Your task to perform on an android device: turn on bluetooth scan Image 0: 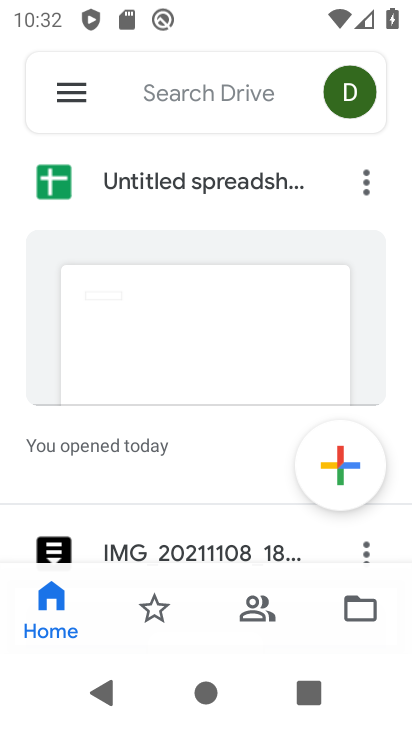
Step 0: press home button
Your task to perform on an android device: turn on bluetooth scan Image 1: 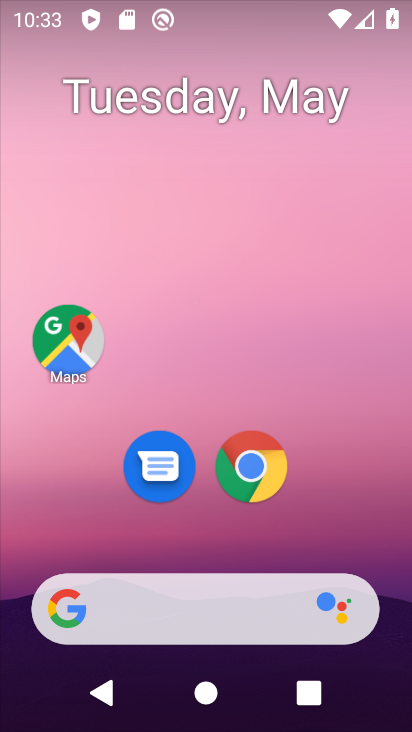
Step 1: drag from (140, 566) to (197, 141)
Your task to perform on an android device: turn on bluetooth scan Image 2: 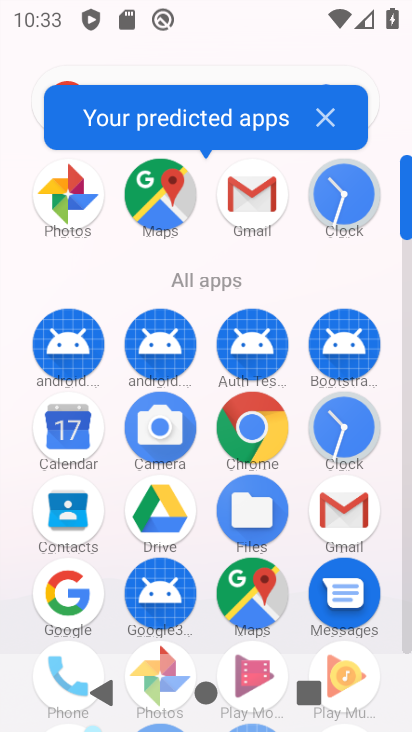
Step 2: drag from (122, 682) to (139, 340)
Your task to perform on an android device: turn on bluetooth scan Image 3: 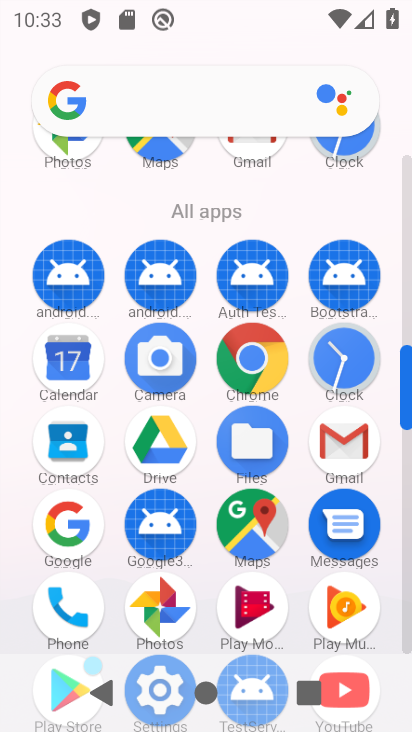
Step 3: drag from (119, 625) to (142, 246)
Your task to perform on an android device: turn on bluetooth scan Image 4: 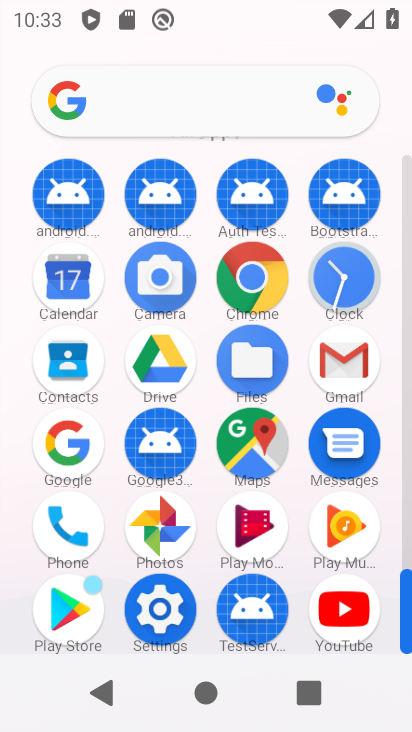
Step 4: click (166, 616)
Your task to perform on an android device: turn on bluetooth scan Image 5: 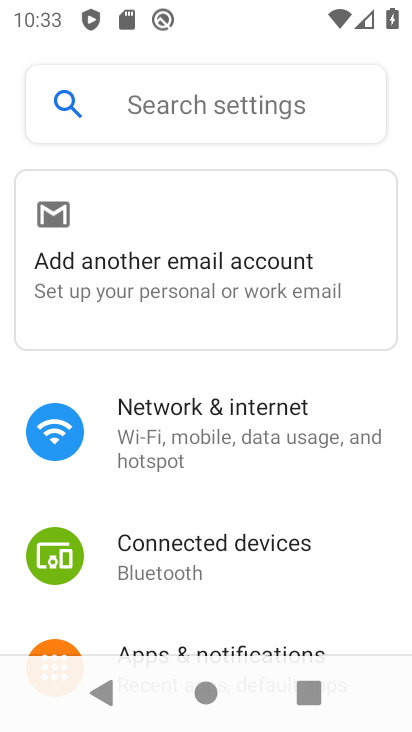
Step 5: drag from (206, 617) to (224, 255)
Your task to perform on an android device: turn on bluetooth scan Image 6: 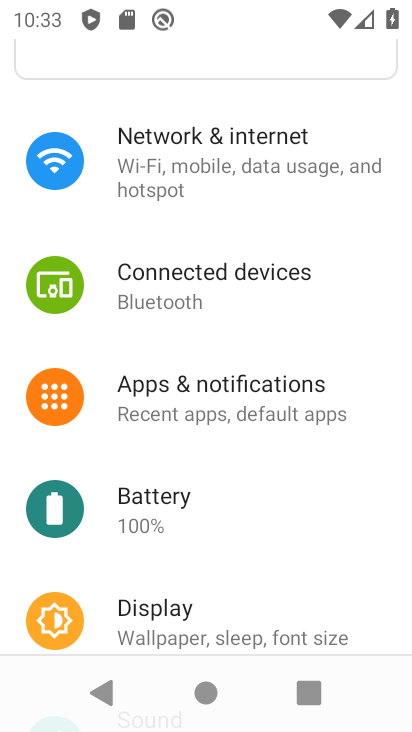
Step 6: drag from (201, 611) to (206, 193)
Your task to perform on an android device: turn on bluetooth scan Image 7: 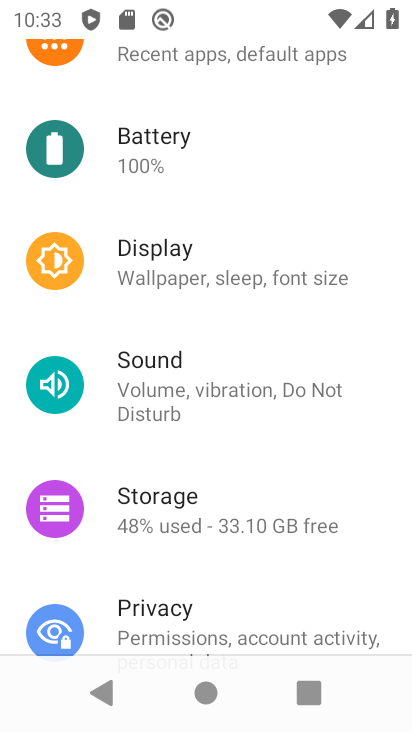
Step 7: drag from (202, 632) to (208, 332)
Your task to perform on an android device: turn on bluetooth scan Image 8: 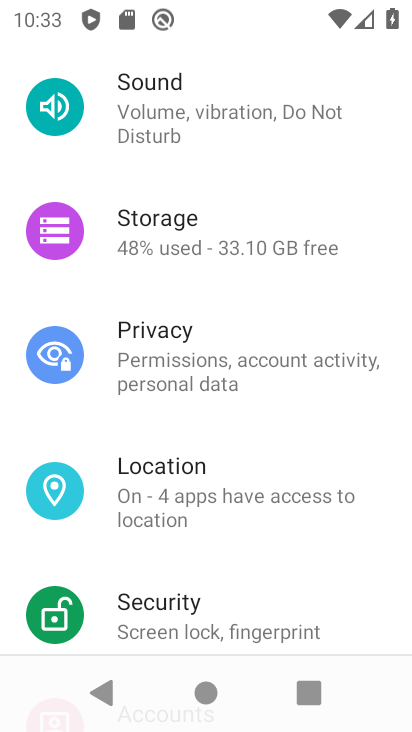
Step 8: click (159, 503)
Your task to perform on an android device: turn on bluetooth scan Image 9: 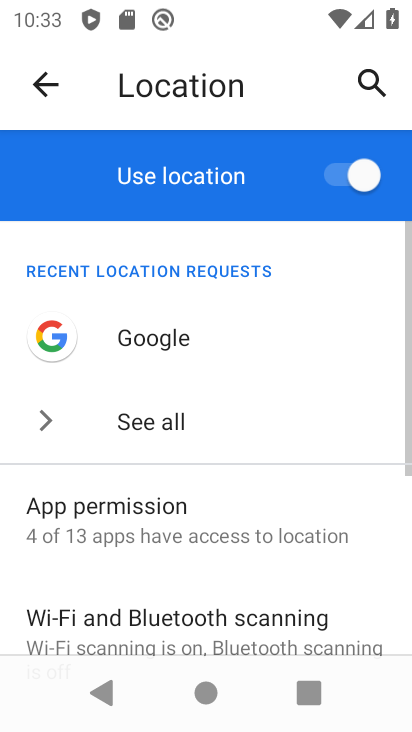
Step 9: click (184, 634)
Your task to perform on an android device: turn on bluetooth scan Image 10: 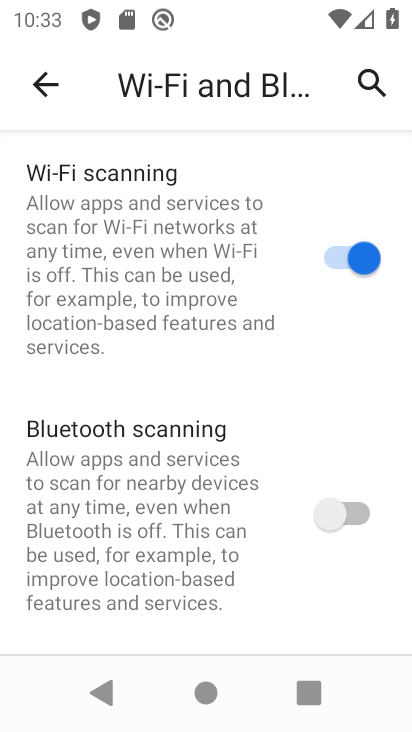
Step 10: click (358, 513)
Your task to perform on an android device: turn on bluetooth scan Image 11: 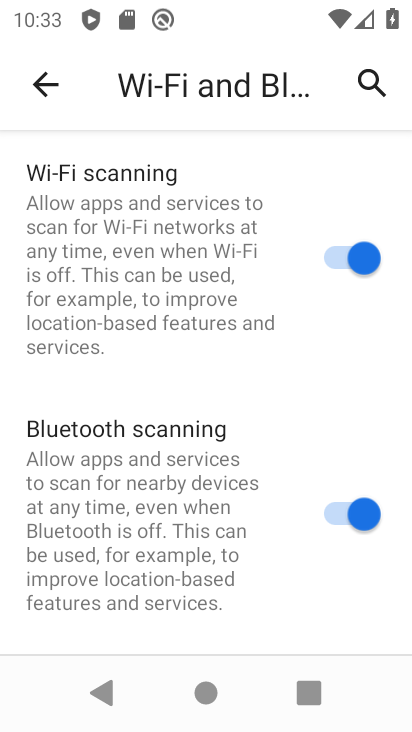
Step 11: task complete